Your task to perform on an android device: turn pop-ups on in chrome Image 0: 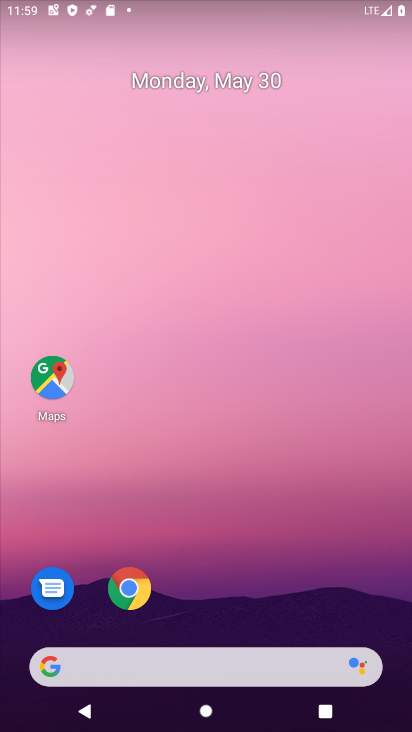
Step 0: click (132, 588)
Your task to perform on an android device: turn pop-ups on in chrome Image 1: 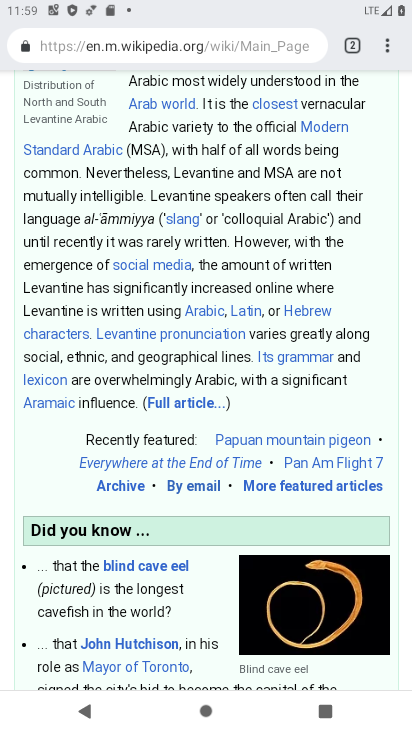
Step 1: click (382, 44)
Your task to perform on an android device: turn pop-ups on in chrome Image 2: 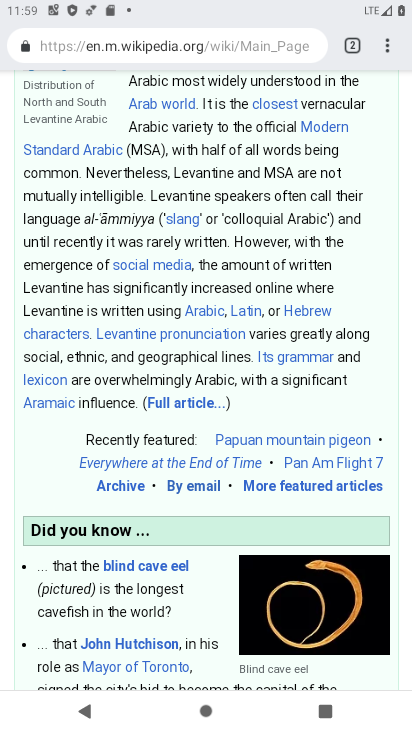
Step 2: click (382, 44)
Your task to perform on an android device: turn pop-ups on in chrome Image 3: 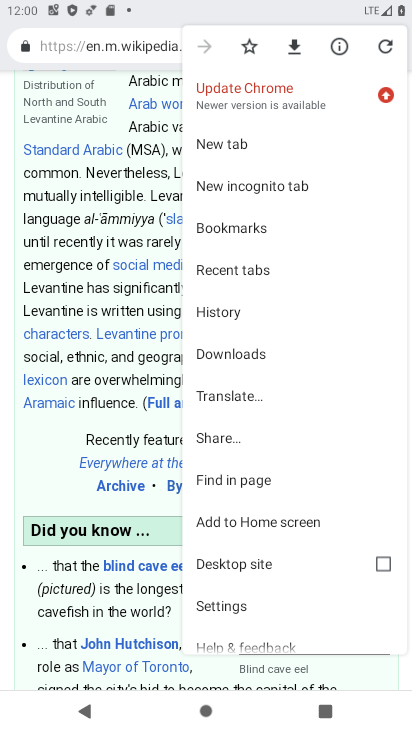
Step 3: click (271, 604)
Your task to perform on an android device: turn pop-ups on in chrome Image 4: 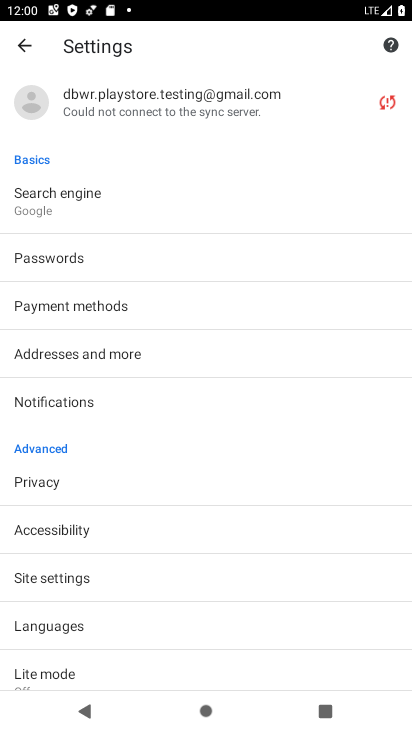
Step 4: click (106, 580)
Your task to perform on an android device: turn pop-ups on in chrome Image 5: 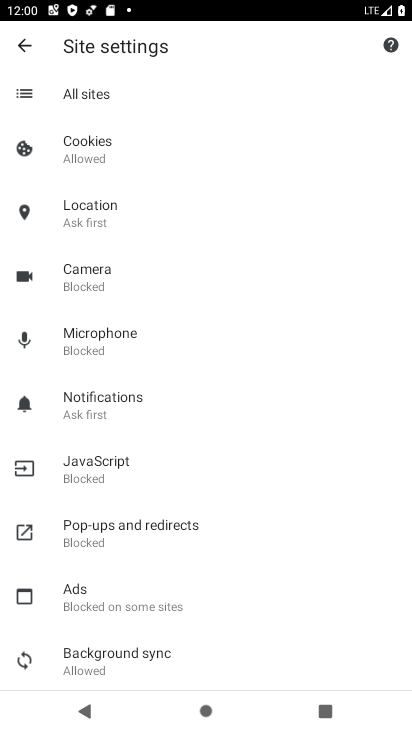
Step 5: click (135, 533)
Your task to perform on an android device: turn pop-ups on in chrome Image 6: 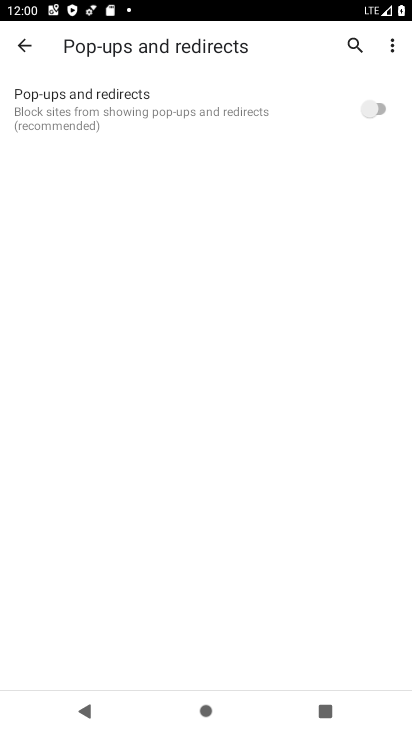
Step 6: click (385, 99)
Your task to perform on an android device: turn pop-ups on in chrome Image 7: 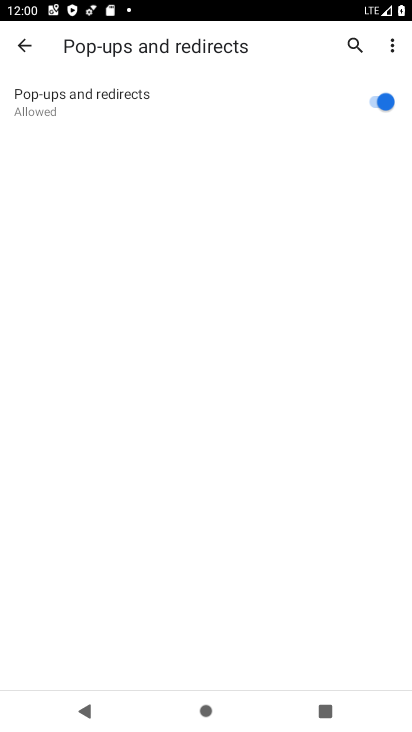
Step 7: task complete